Your task to perform on an android device: Open the calendar and show me this week's events? Image 0: 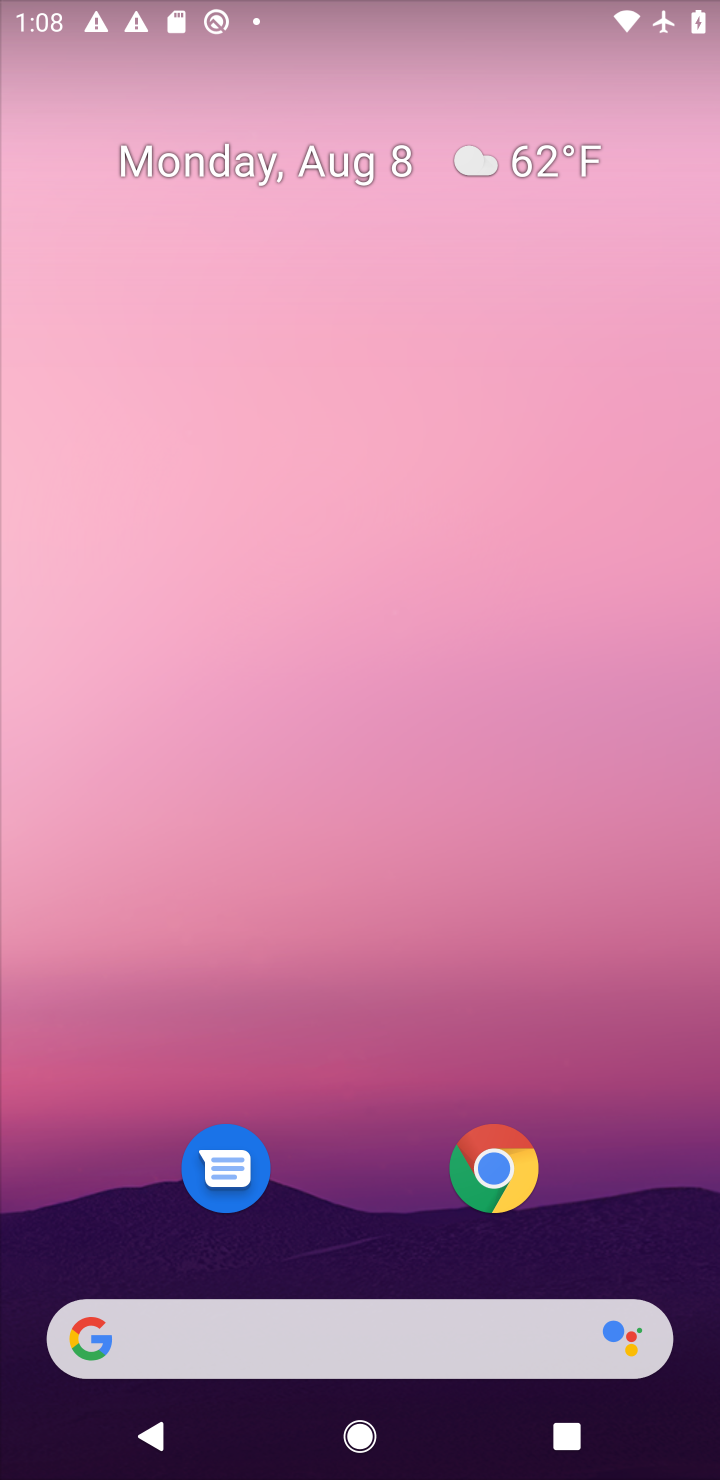
Step 0: drag from (289, 1240) to (284, 203)
Your task to perform on an android device: Open the calendar and show me this week's events? Image 1: 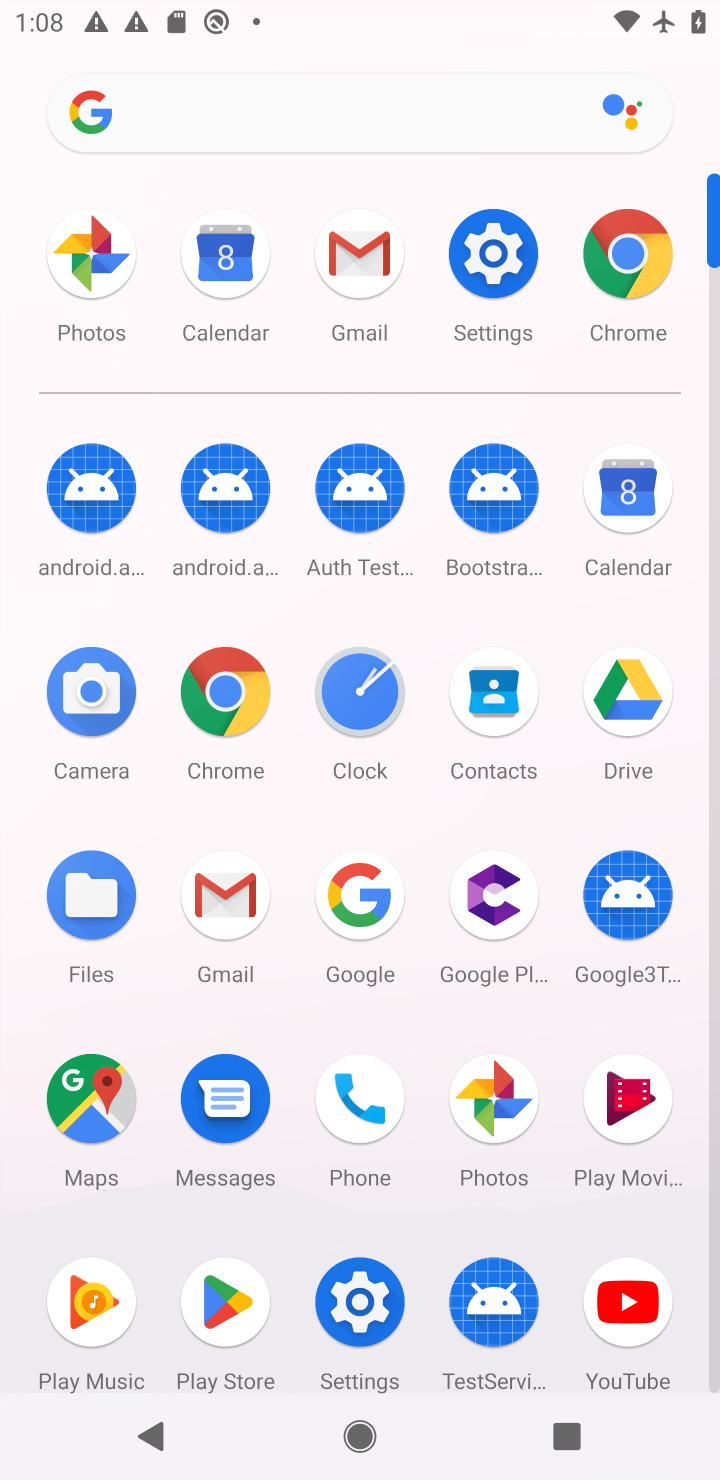
Step 1: click (630, 566)
Your task to perform on an android device: Open the calendar and show me this week's events? Image 2: 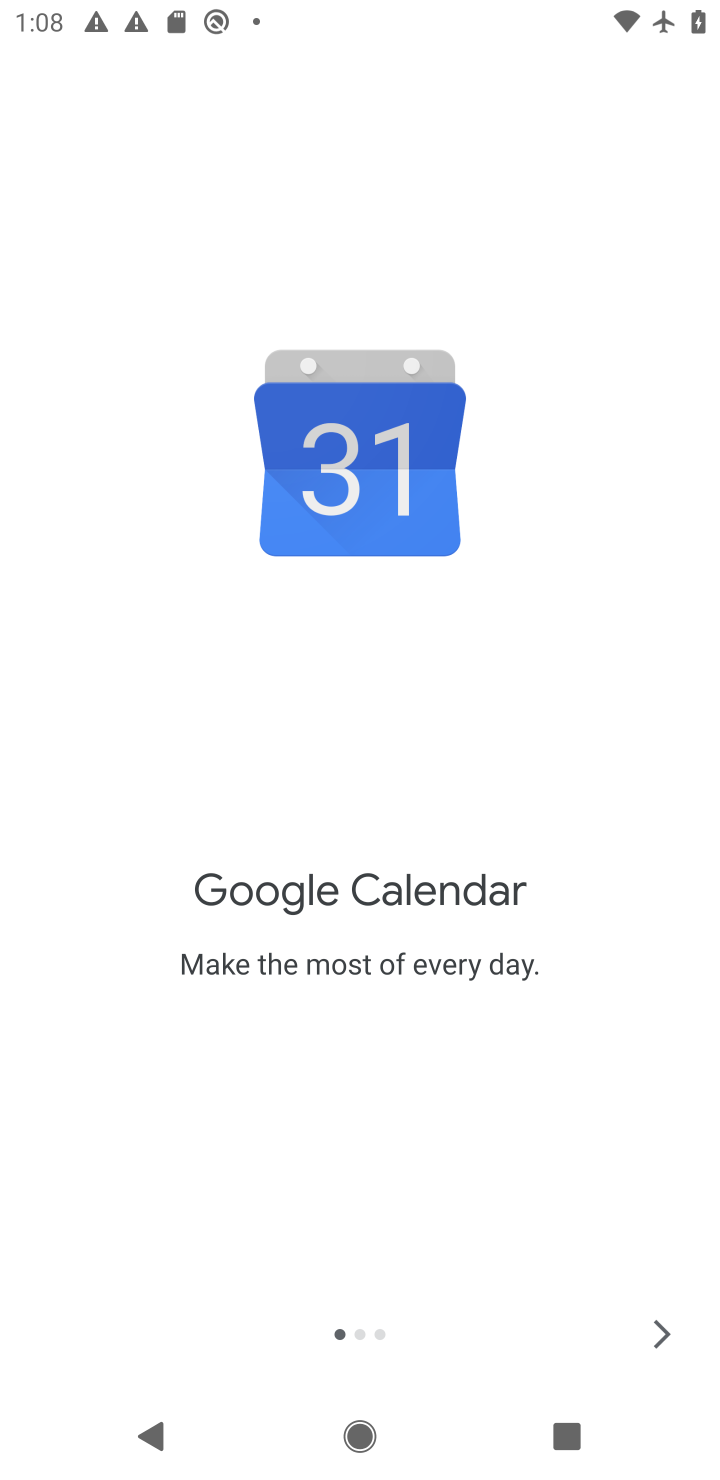
Step 2: click (671, 1319)
Your task to perform on an android device: Open the calendar and show me this week's events? Image 3: 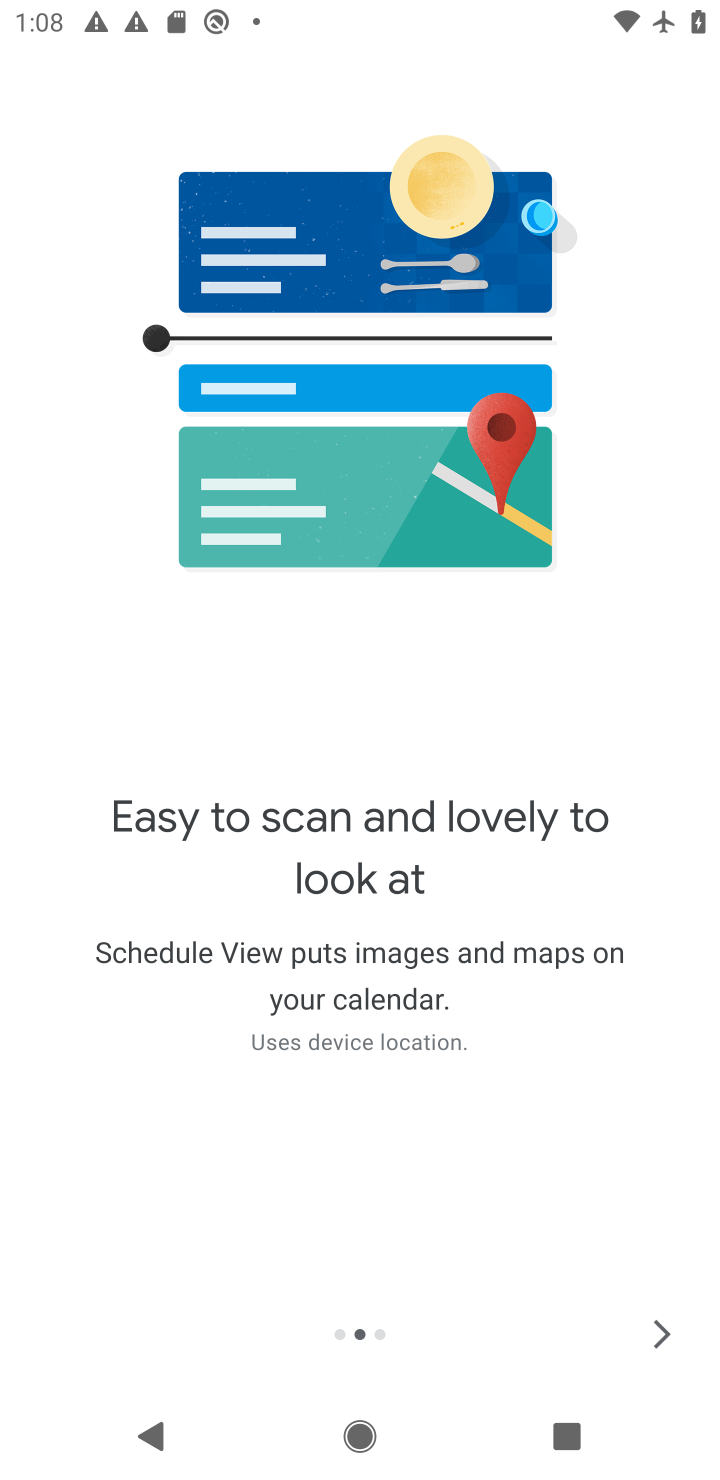
Step 3: click (673, 1354)
Your task to perform on an android device: Open the calendar and show me this week's events? Image 4: 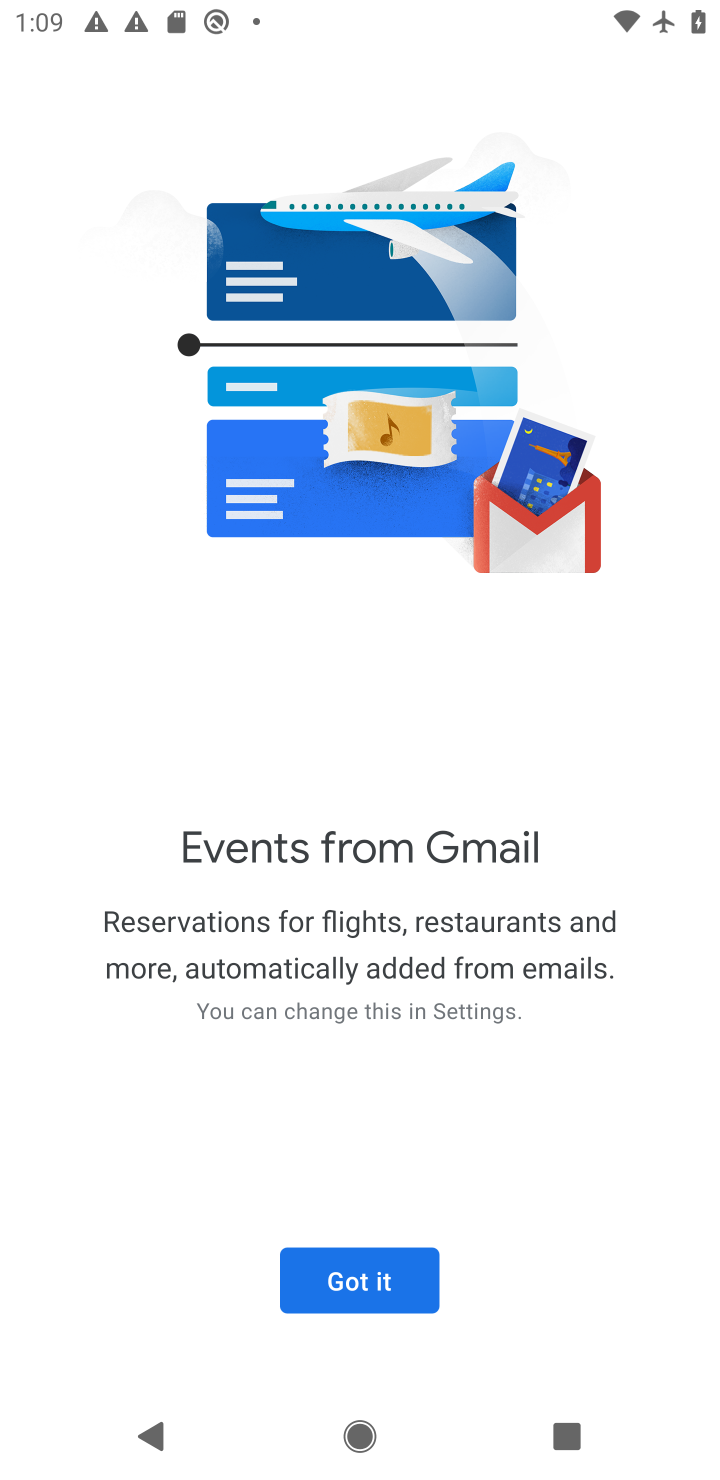
Step 4: click (386, 1263)
Your task to perform on an android device: Open the calendar and show me this week's events? Image 5: 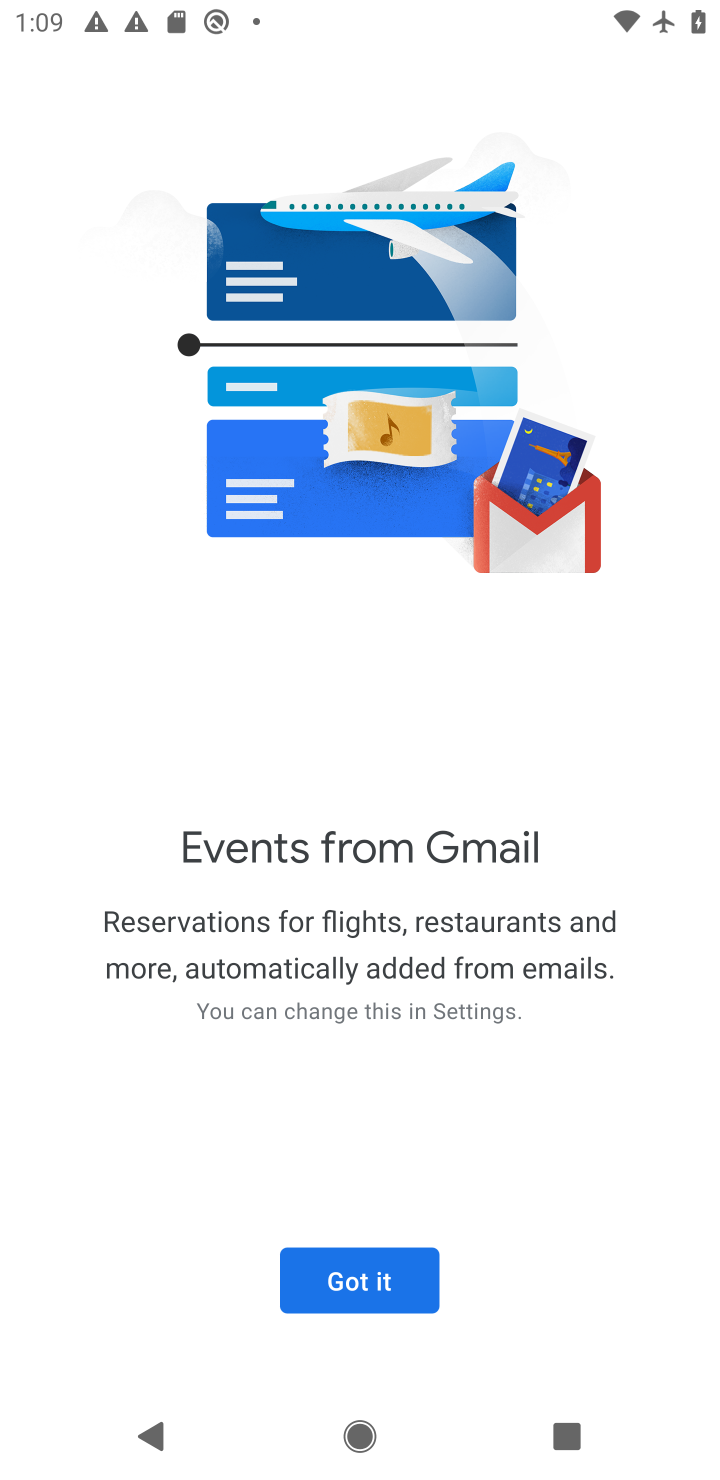
Step 5: task complete